Your task to perform on an android device: Check the weather Image 0: 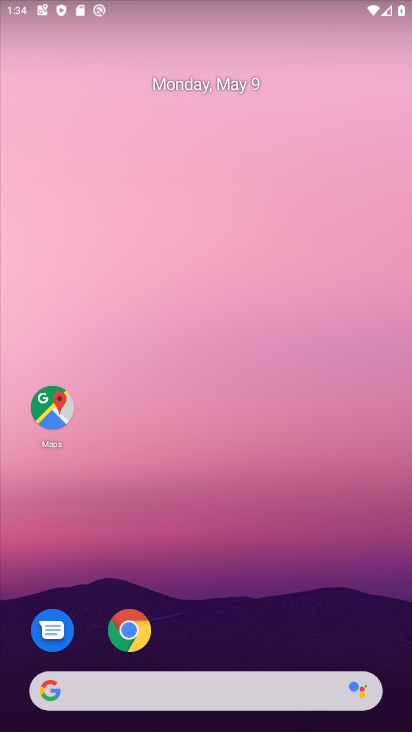
Step 0: drag from (339, 719) to (358, 263)
Your task to perform on an android device: Check the weather Image 1: 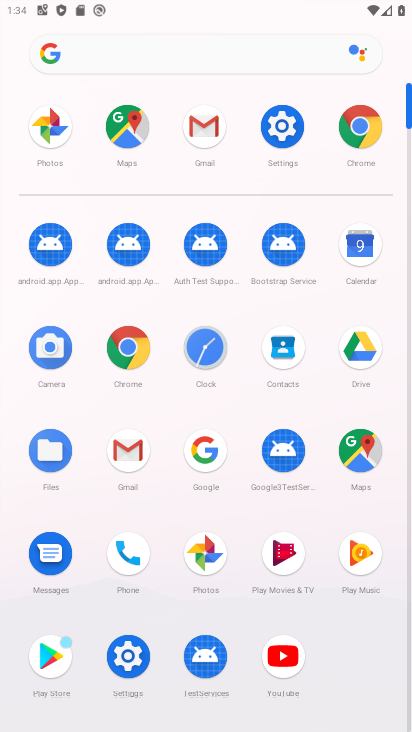
Step 1: click (118, 57)
Your task to perform on an android device: Check the weather Image 2: 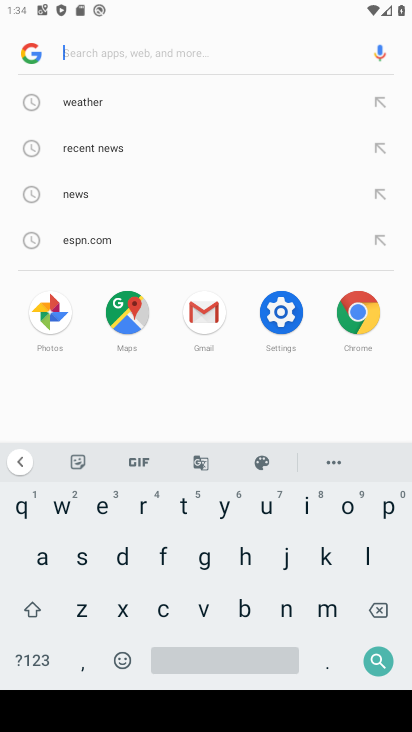
Step 2: click (85, 100)
Your task to perform on an android device: Check the weather Image 3: 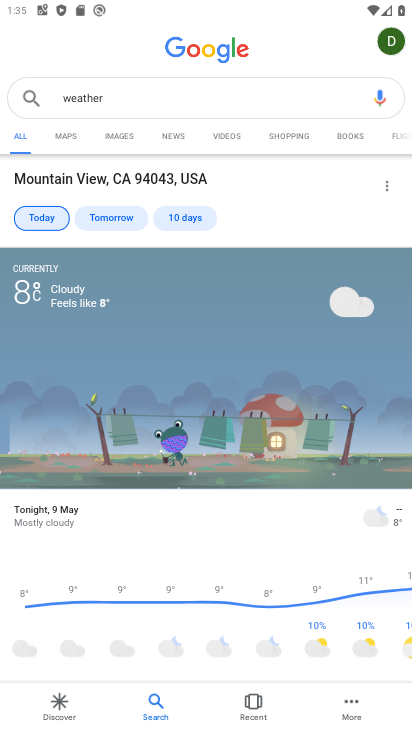
Step 3: task complete